Your task to perform on an android device: Go to battery settings Image 0: 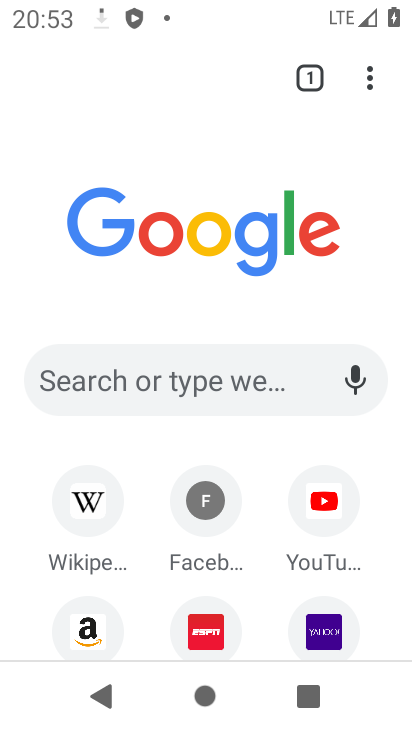
Step 0: press back button
Your task to perform on an android device: Go to battery settings Image 1: 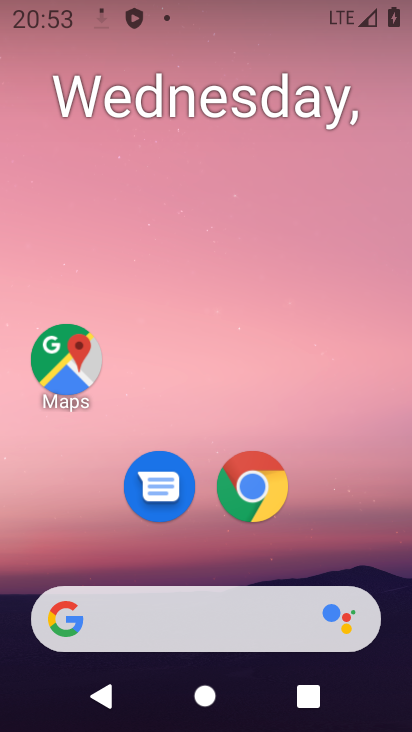
Step 1: drag from (137, 458) to (204, 18)
Your task to perform on an android device: Go to battery settings Image 2: 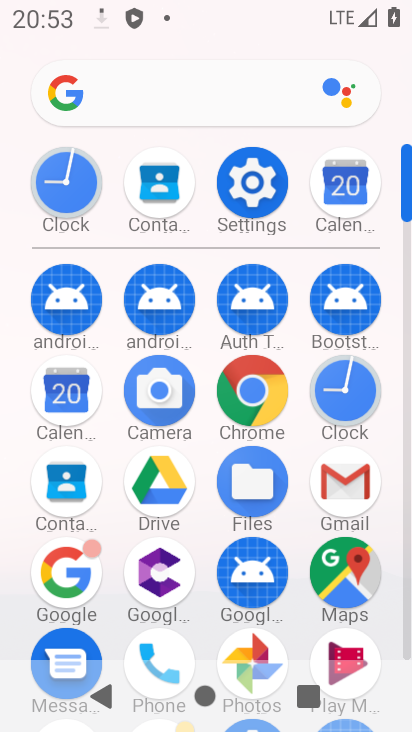
Step 2: click (251, 179)
Your task to perform on an android device: Go to battery settings Image 3: 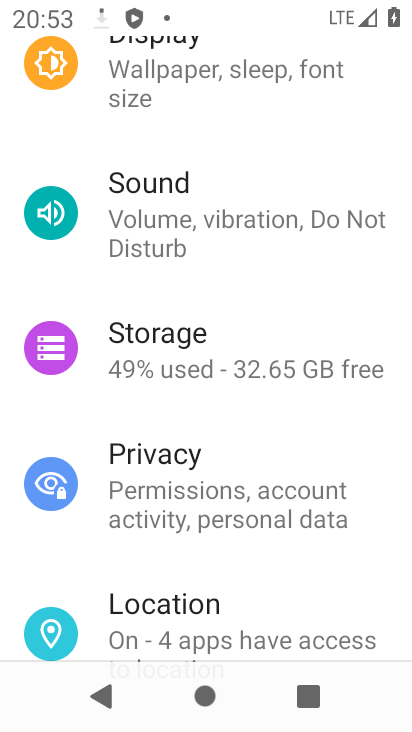
Step 3: drag from (202, 214) to (185, 617)
Your task to perform on an android device: Go to battery settings Image 4: 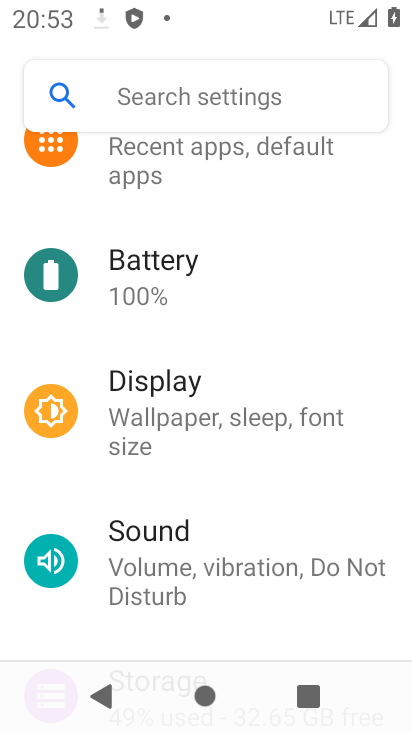
Step 4: click (142, 278)
Your task to perform on an android device: Go to battery settings Image 5: 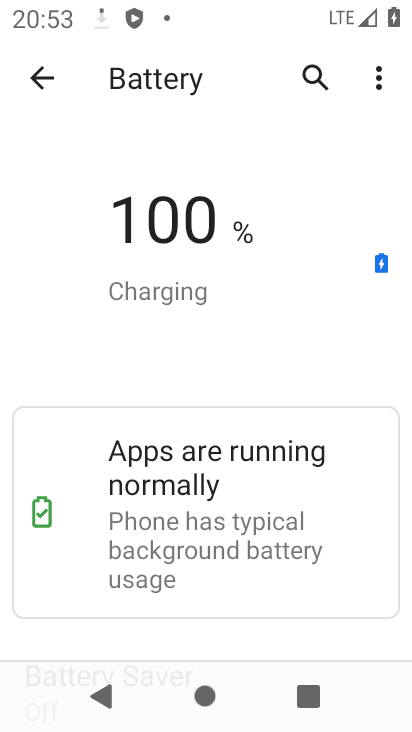
Step 5: task complete